Your task to perform on an android device: What is the news today? Image 0: 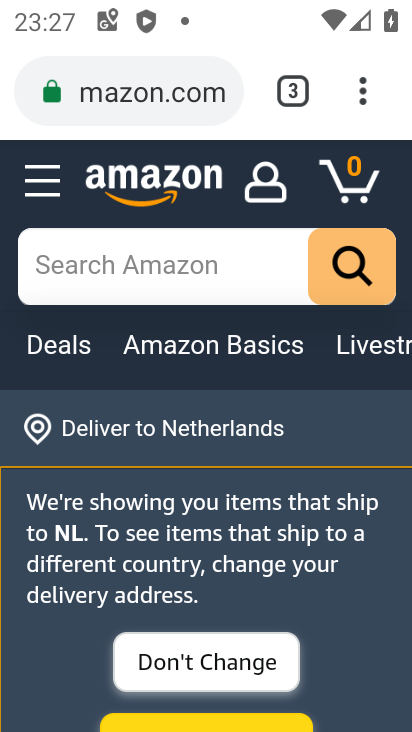
Step 0: press home button
Your task to perform on an android device: What is the news today? Image 1: 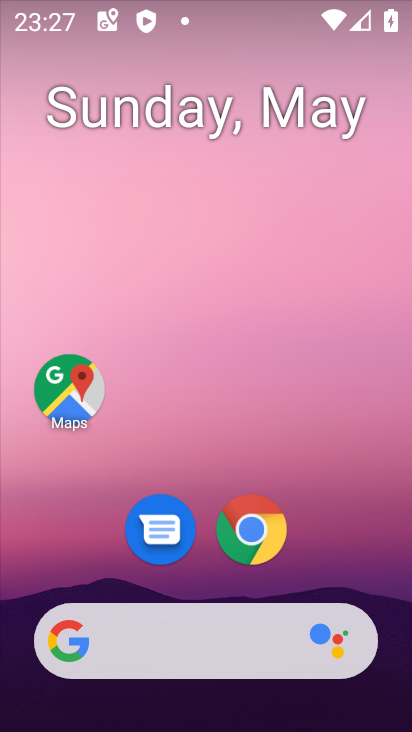
Step 1: click (202, 633)
Your task to perform on an android device: What is the news today? Image 2: 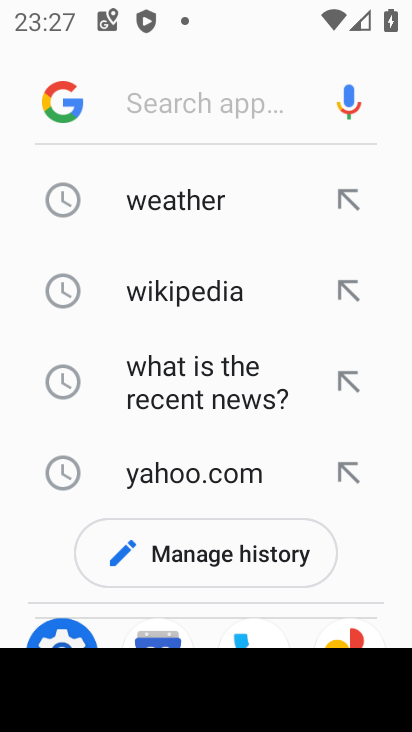
Step 2: click (223, 401)
Your task to perform on an android device: What is the news today? Image 3: 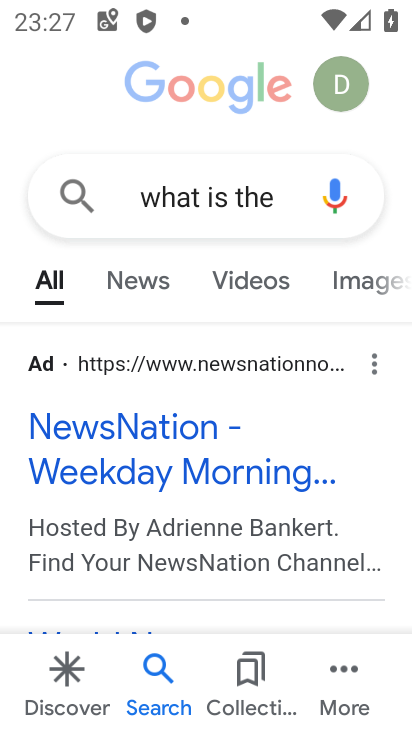
Step 3: task complete